Your task to perform on an android device: Open Yahoo.com Image 0: 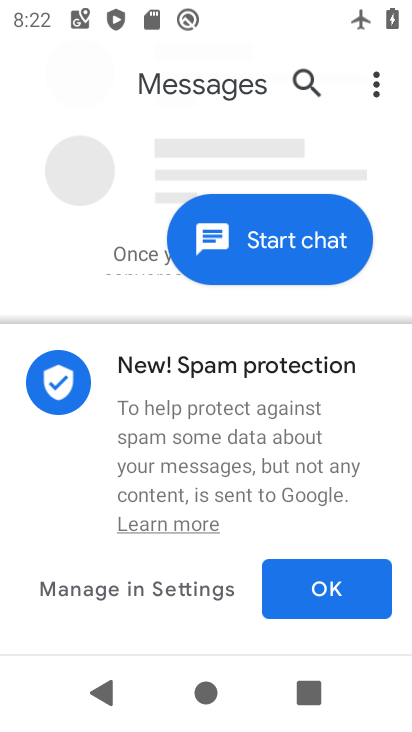
Step 0: press home button
Your task to perform on an android device: Open Yahoo.com Image 1: 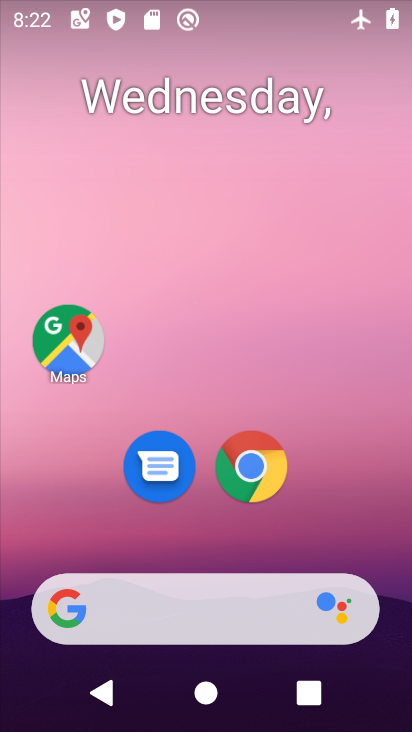
Step 1: click (275, 460)
Your task to perform on an android device: Open Yahoo.com Image 2: 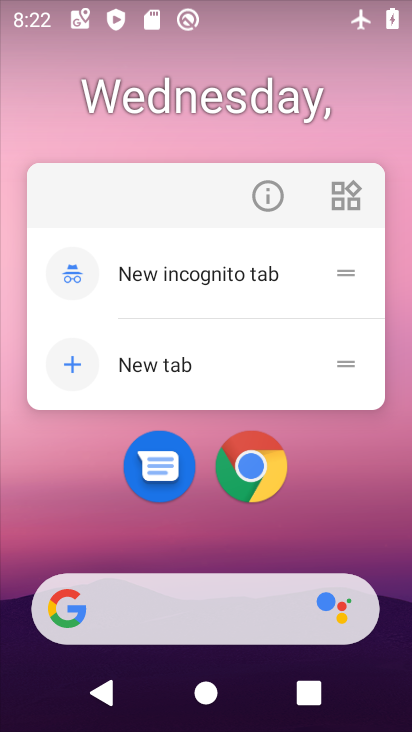
Step 2: click (275, 460)
Your task to perform on an android device: Open Yahoo.com Image 3: 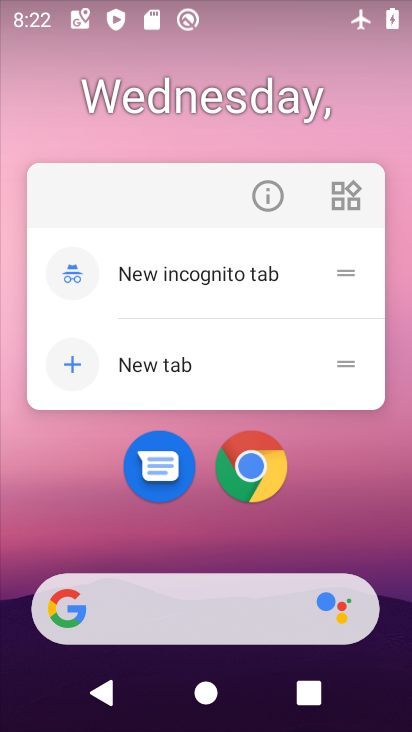
Step 3: click (243, 465)
Your task to perform on an android device: Open Yahoo.com Image 4: 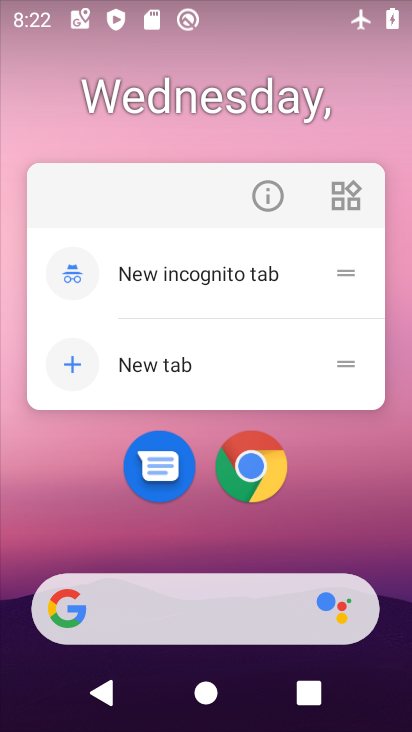
Step 4: click (243, 465)
Your task to perform on an android device: Open Yahoo.com Image 5: 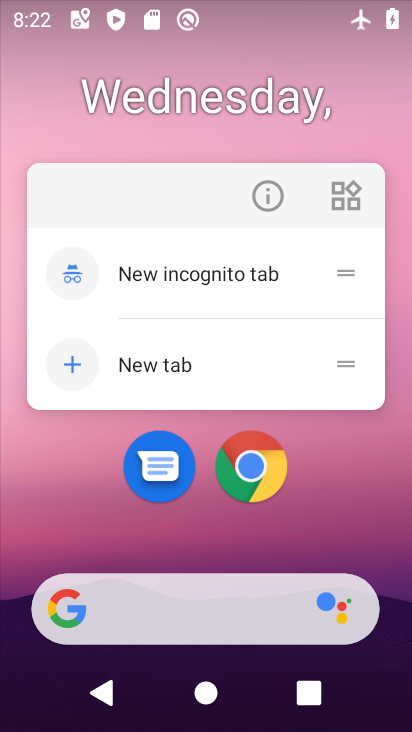
Step 5: click (245, 466)
Your task to perform on an android device: Open Yahoo.com Image 6: 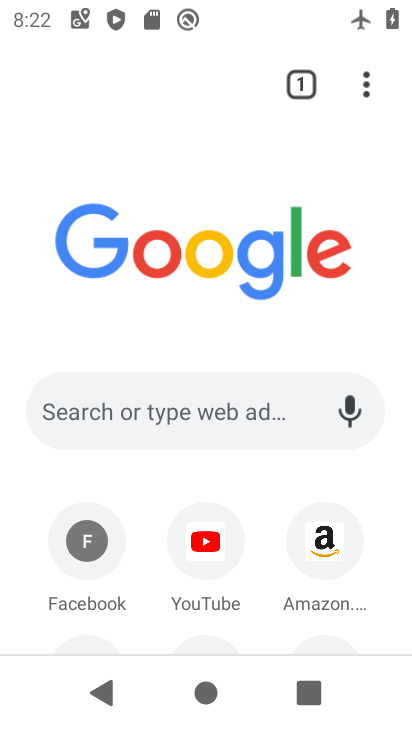
Step 6: click (151, 425)
Your task to perform on an android device: Open Yahoo.com Image 7: 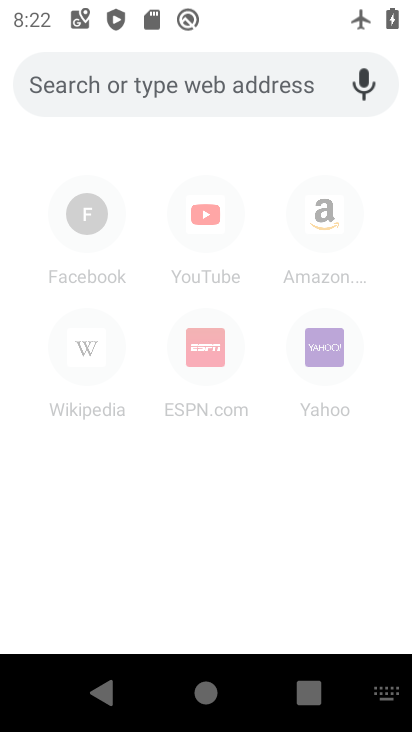
Step 7: type "yahoo.com"
Your task to perform on an android device: Open Yahoo.com Image 8: 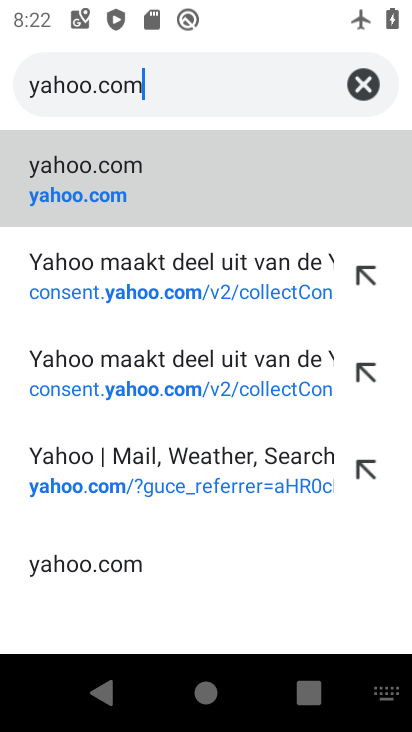
Step 8: click (37, 186)
Your task to perform on an android device: Open Yahoo.com Image 9: 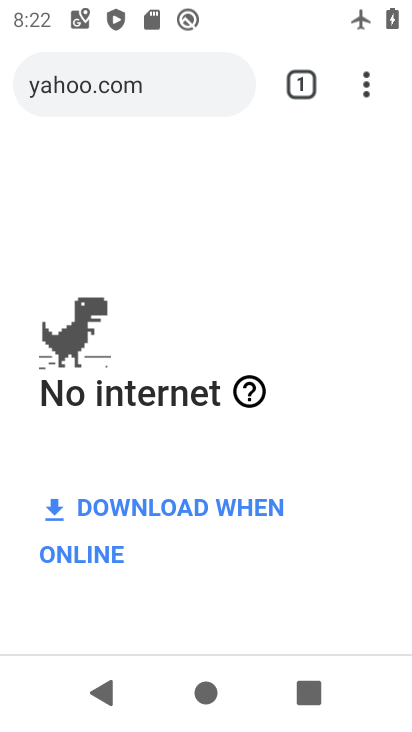
Step 9: task complete